Your task to perform on an android device: Add "asus rog" to the cart on newegg.com Image 0: 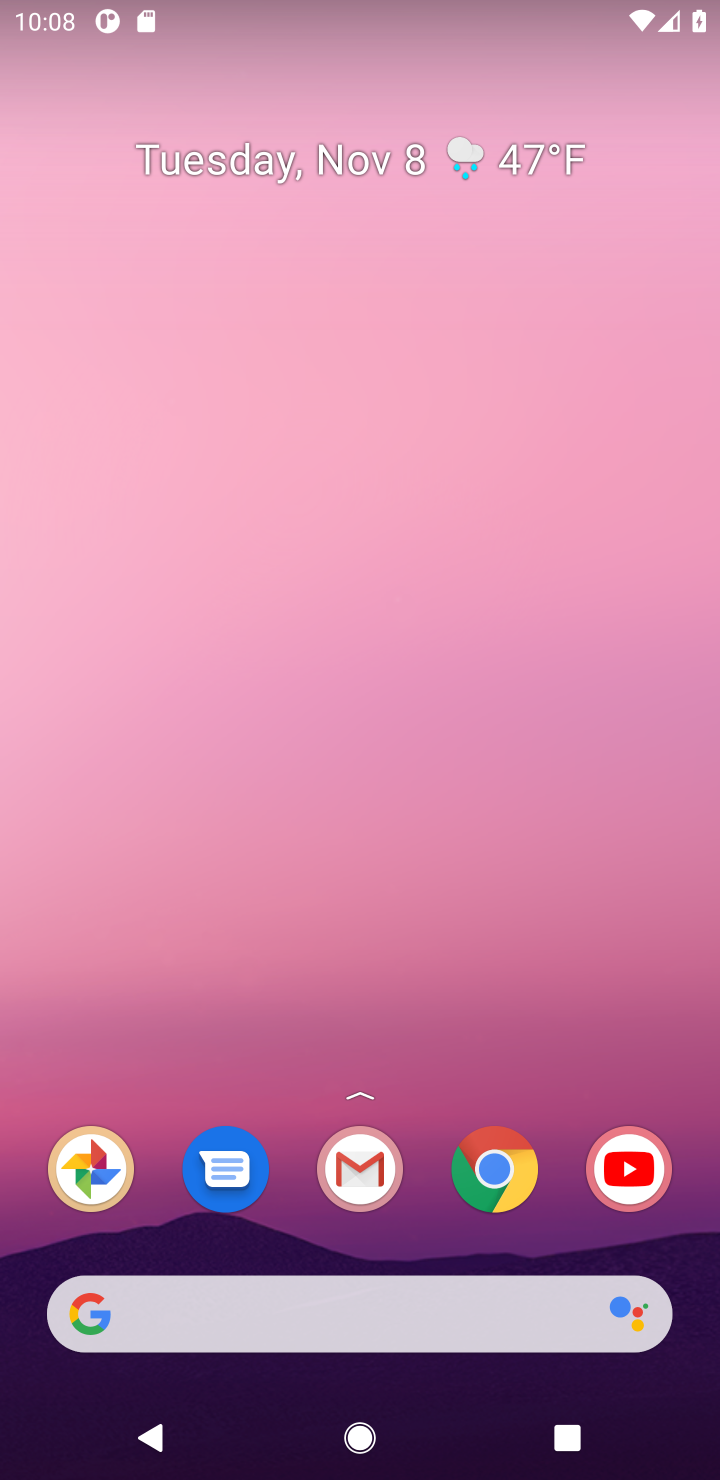
Step 0: click (500, 1168)
Your task to perform on an android device: Add "asus rog" to the cart on newegg.com Image 1: 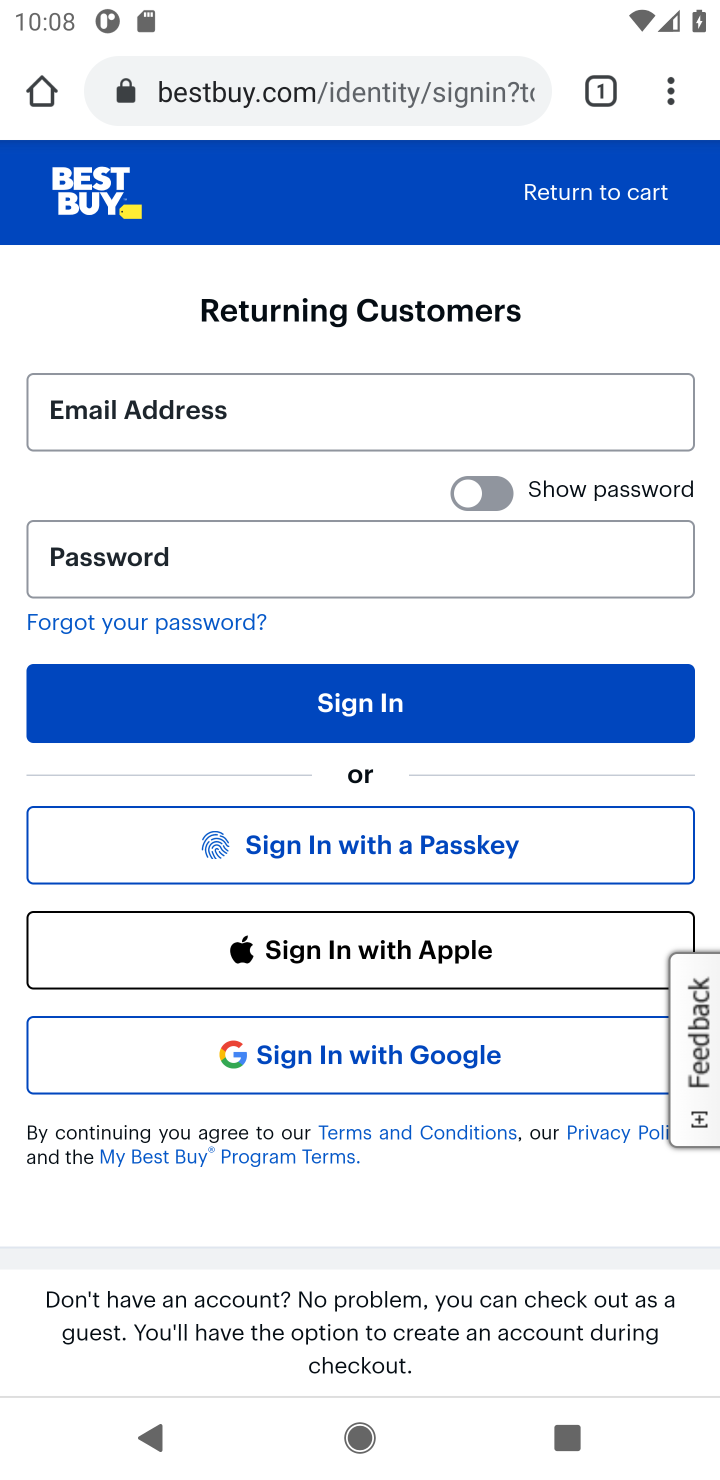
Step 1: click (354, 82)
Your task to perform on an android device: Add "asus rog" to the cart on newegg.com Image 2: 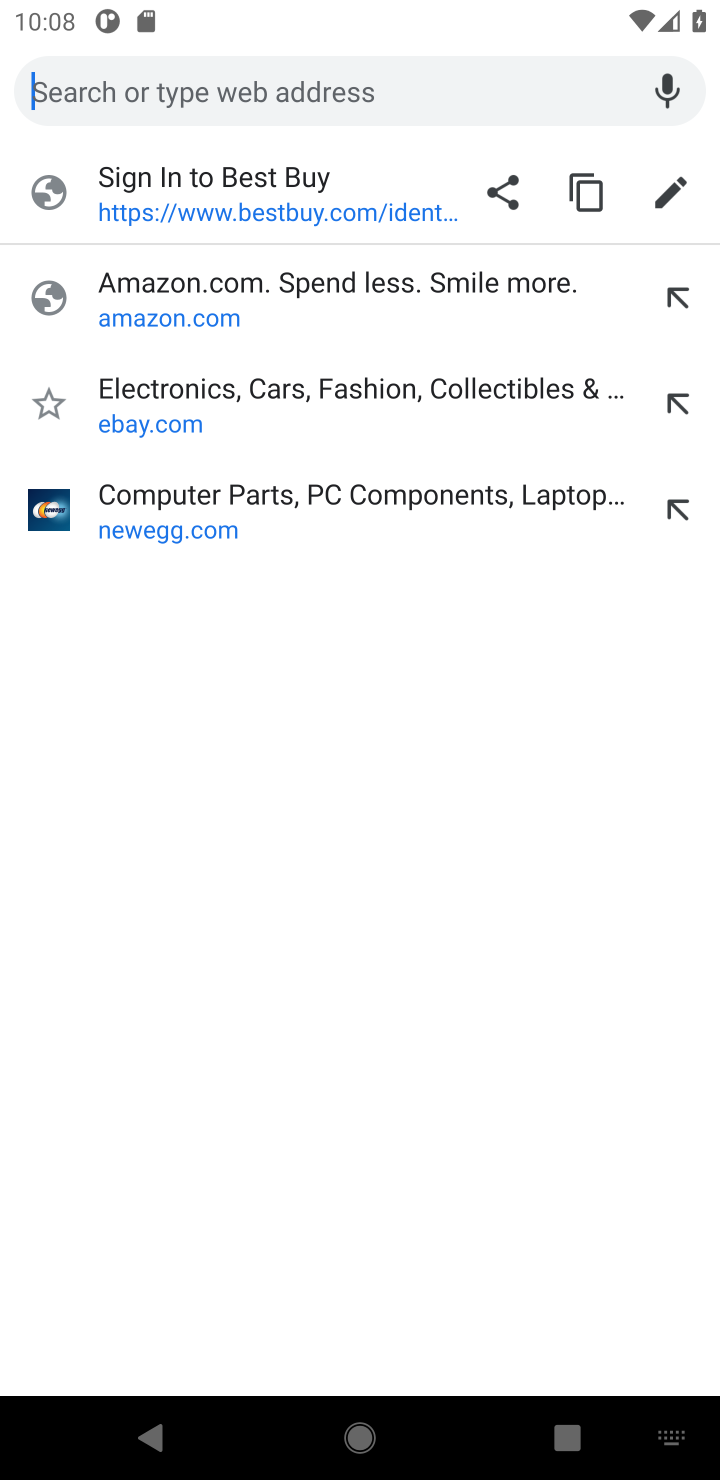
Step 2: type "newegg.com"
Your task to perform on an android device: Add "asus rog" to the cart on newegg.com Image 3: 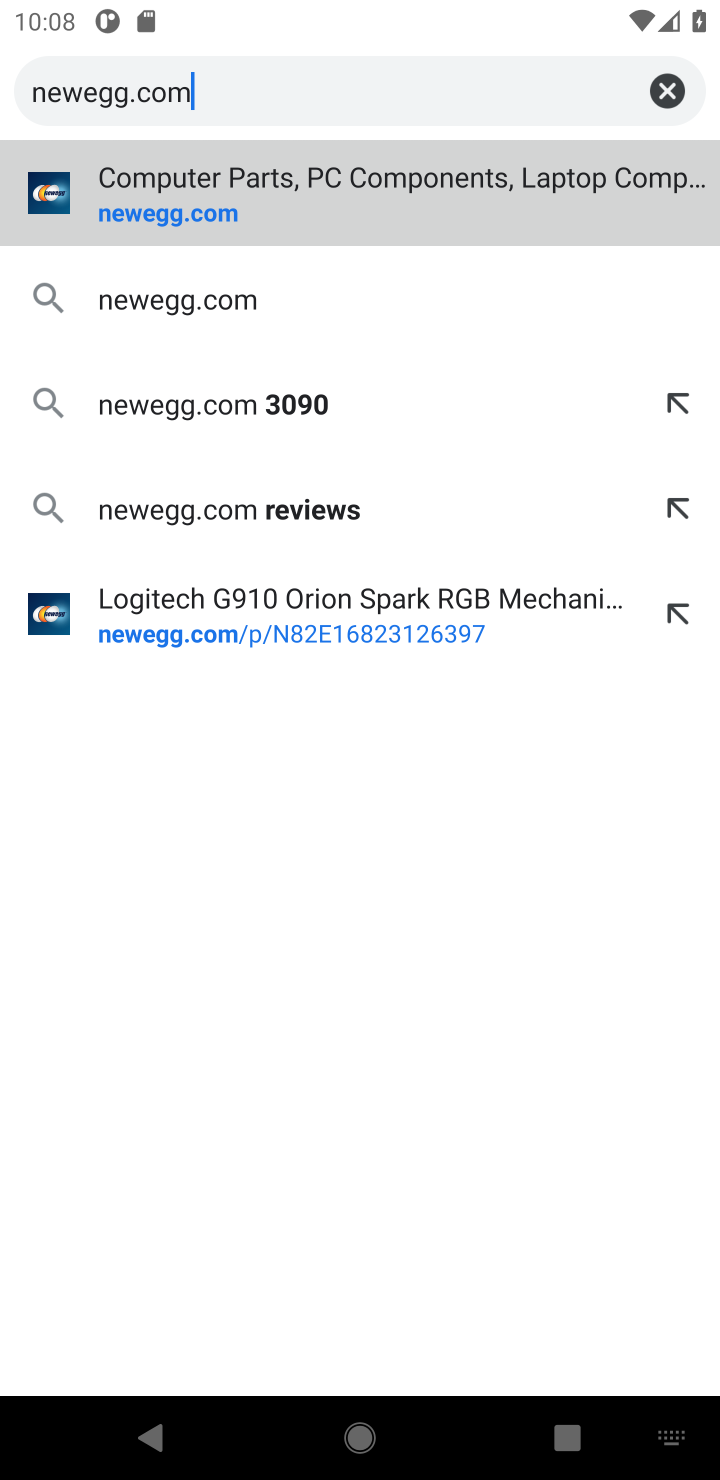
Step 3: click (187, 300)
Your task to perform on an android device: Add "asus rog" to the cart on newegg.com Image 4: 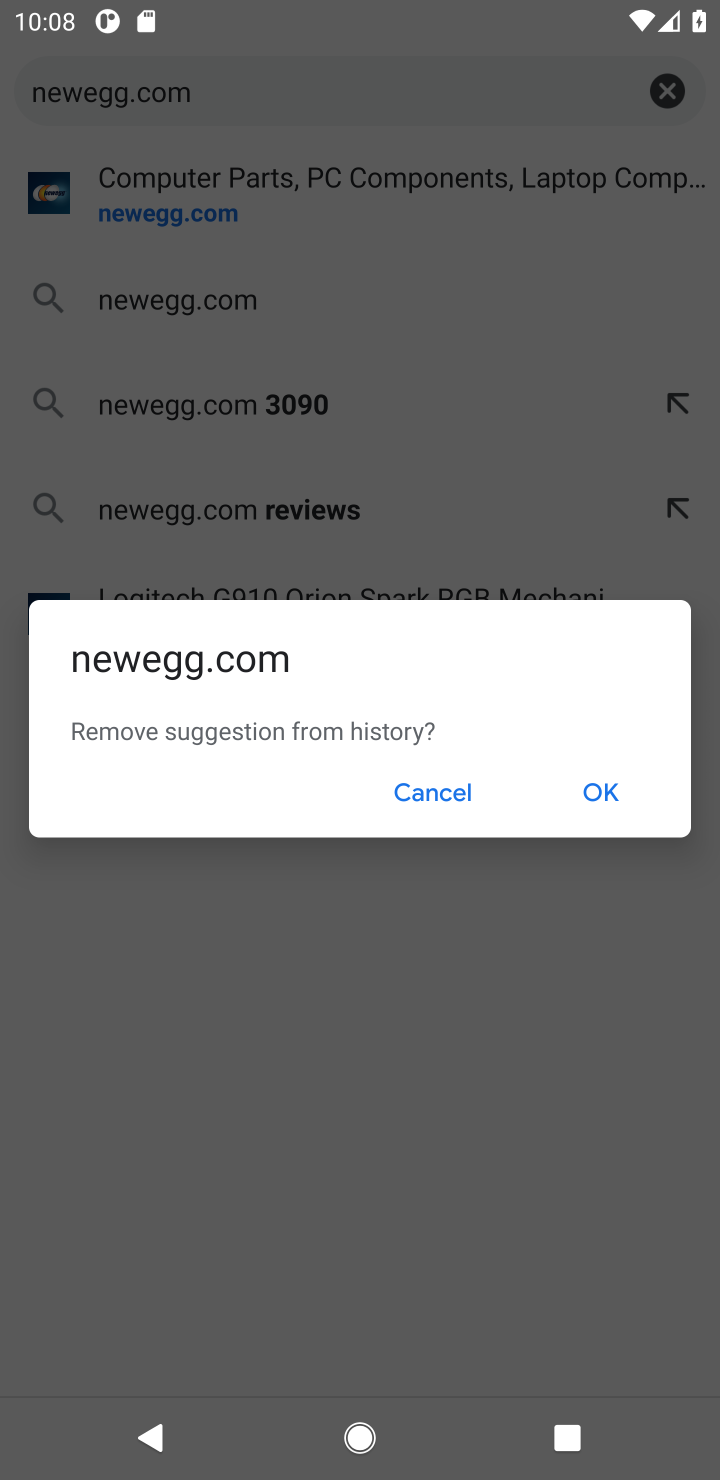
Step 4: click (603, 772)
Your task to perform on an android device: Add "asus rog" to the cart on newegg.com Image 5: 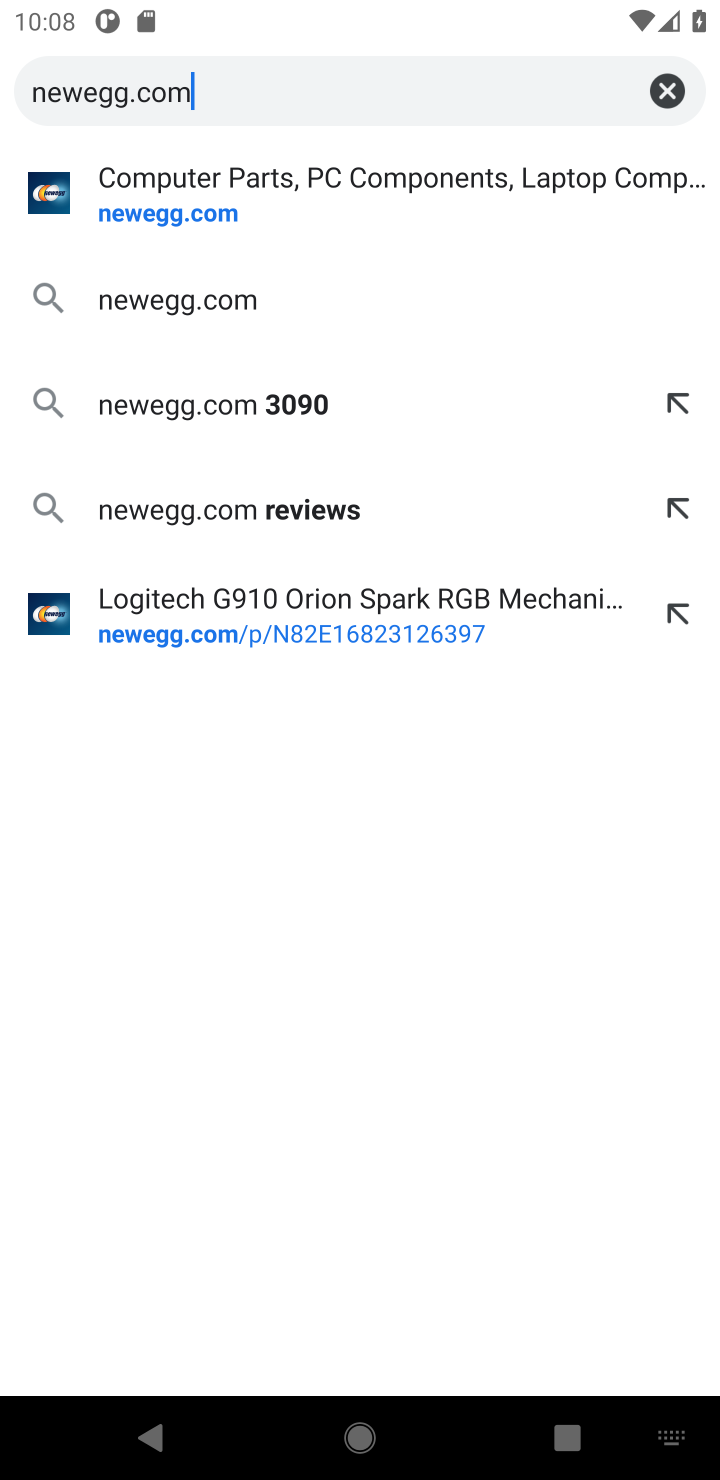
Step 5: click (220, 301)
Your task to perform on an android device: Add "asus rog" to the cart on newegg.com Image 6: 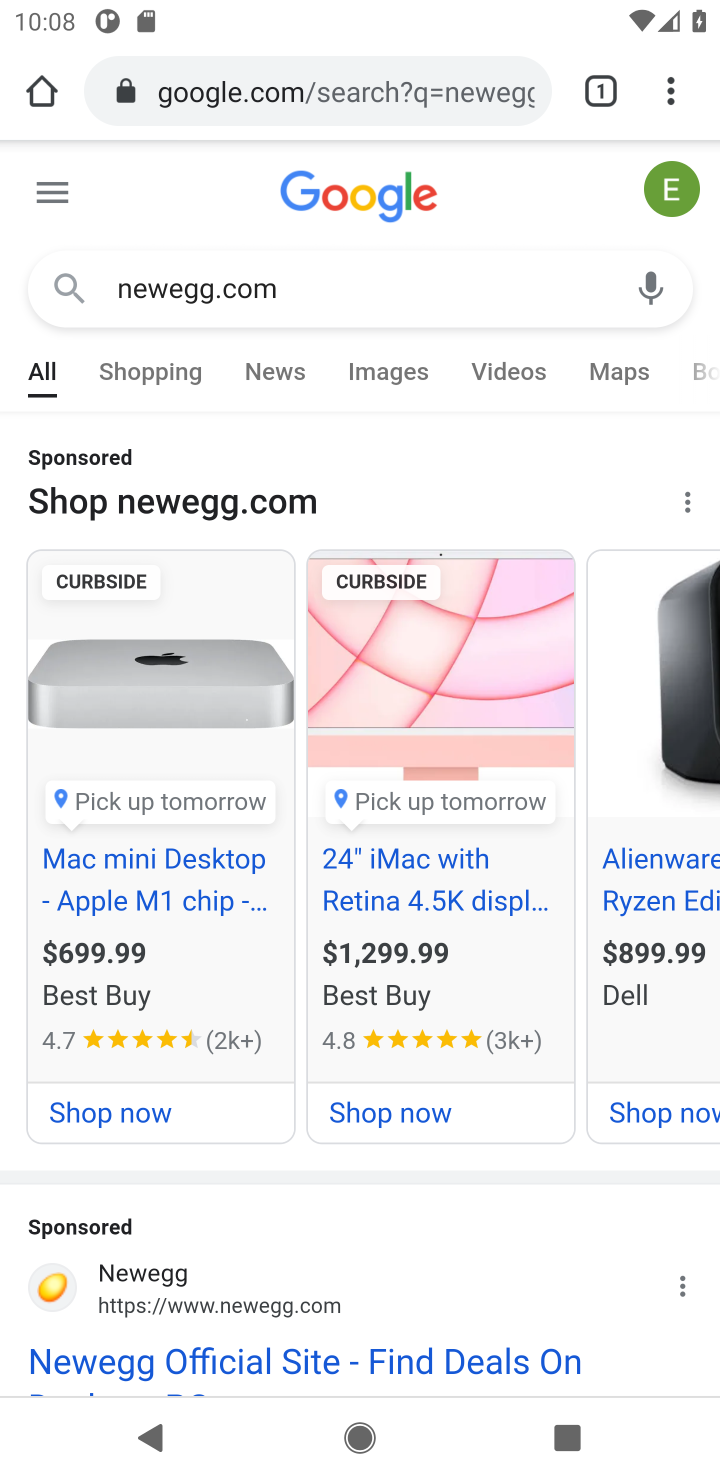
Step 6: click (276, 1288)
Your task to perform on an android device: Add "asus rog" to the cart on newegg.com Image 7: 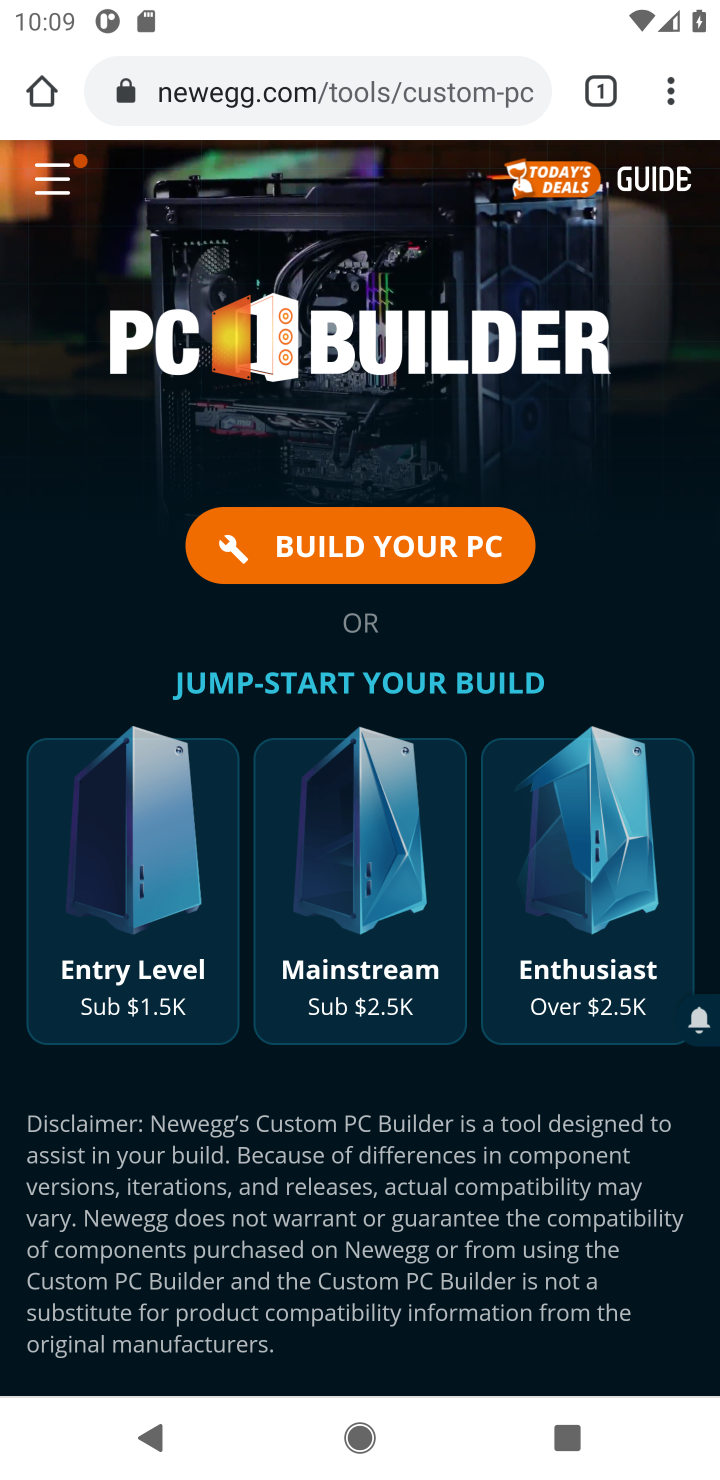
Step 7: drag from (468, 1052) to (482, 1242)
Your task to perform on an android device: Add "asus rog" to the cart on newegg.com Image 8: 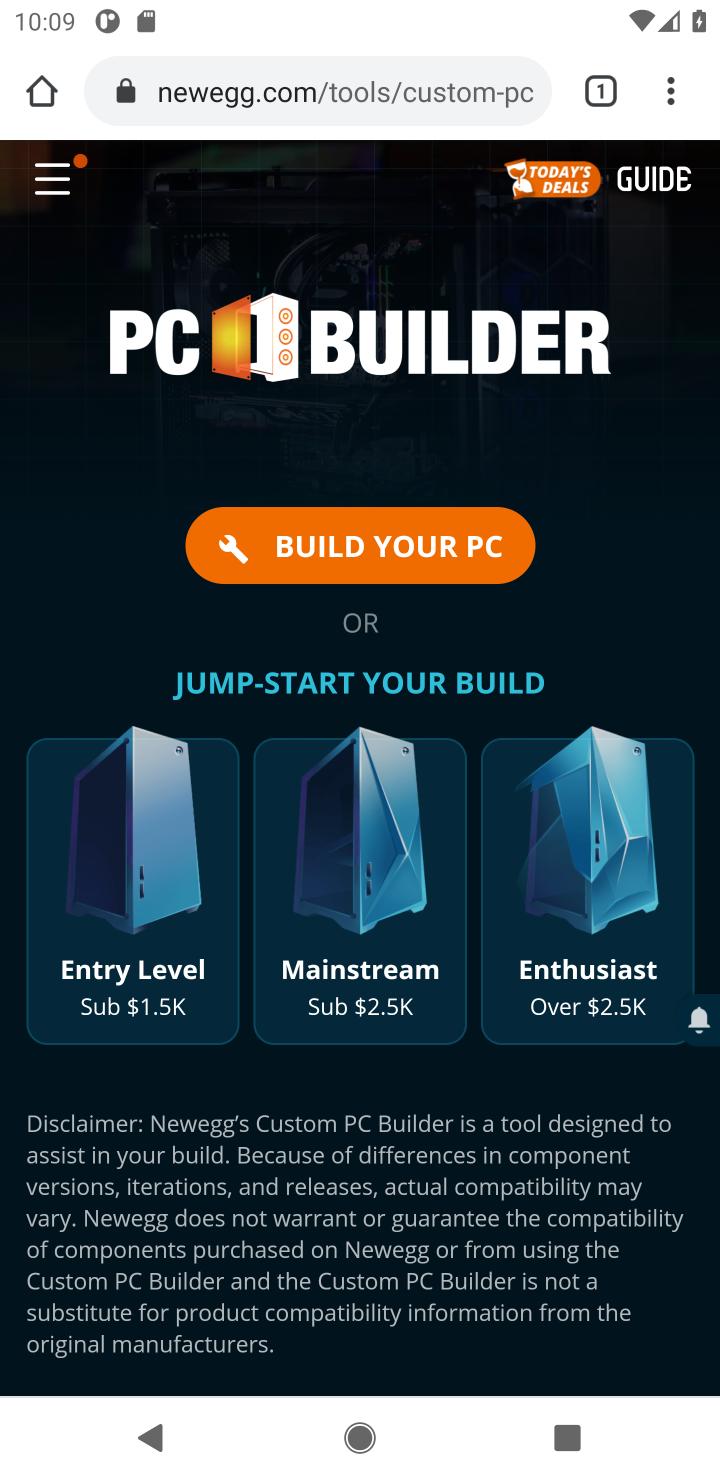
Step 8: press back button
Your task to perform on an android device: Add "asus rog" to the cart on newegg.com Image 9: 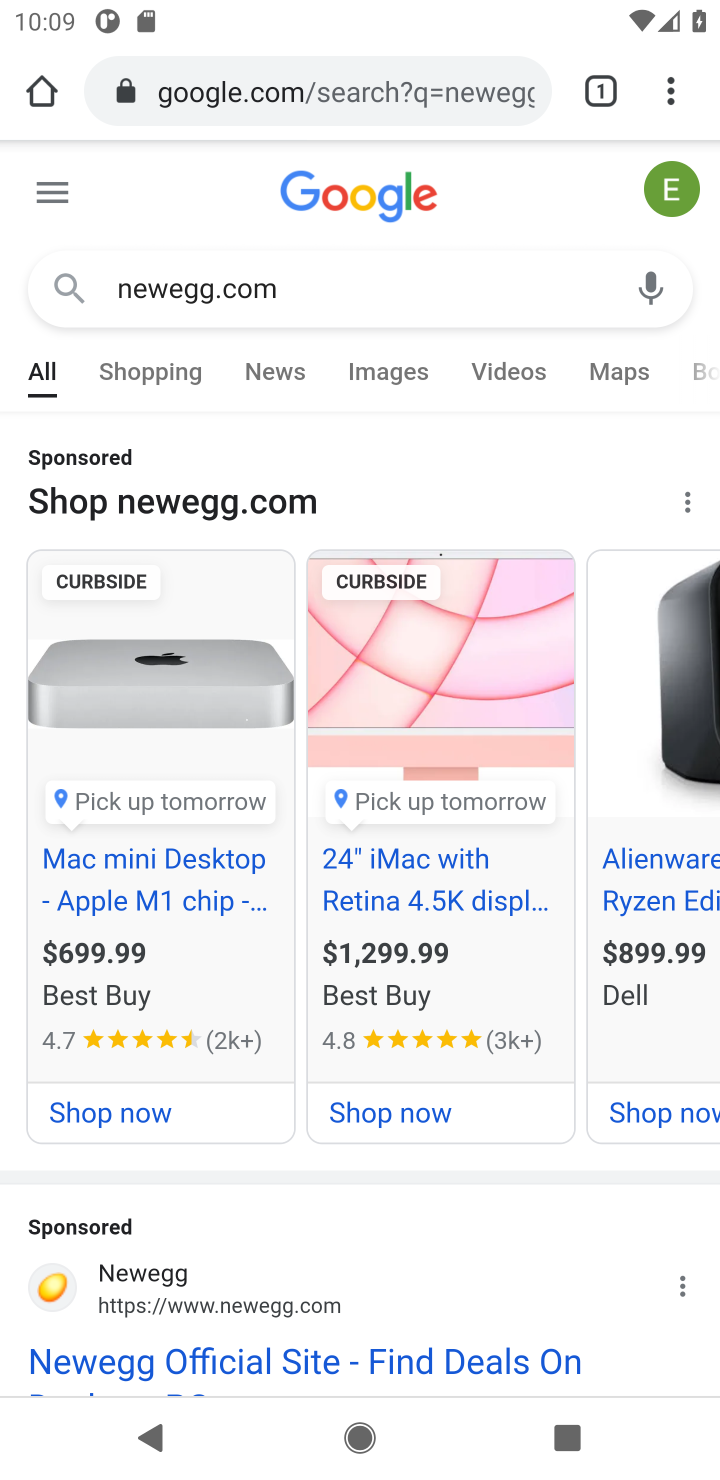
Step 9: click (308, 1301)
Your task to perform on an android device: Add "asus rog" to the cart on newegg.com Image 10: 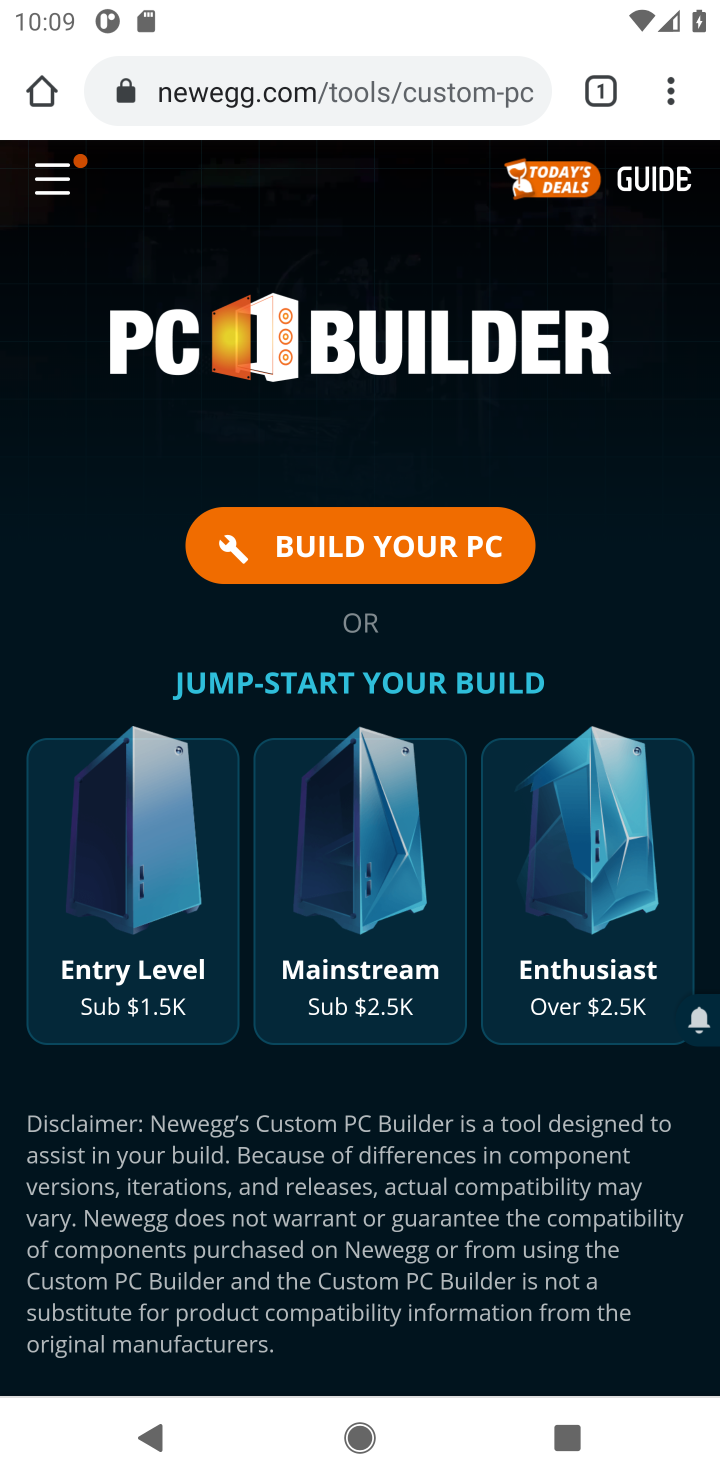
Step 10: press back button
Your task to perform on an android device: Add "asus rog" to the cart on newegg.com Image 11: 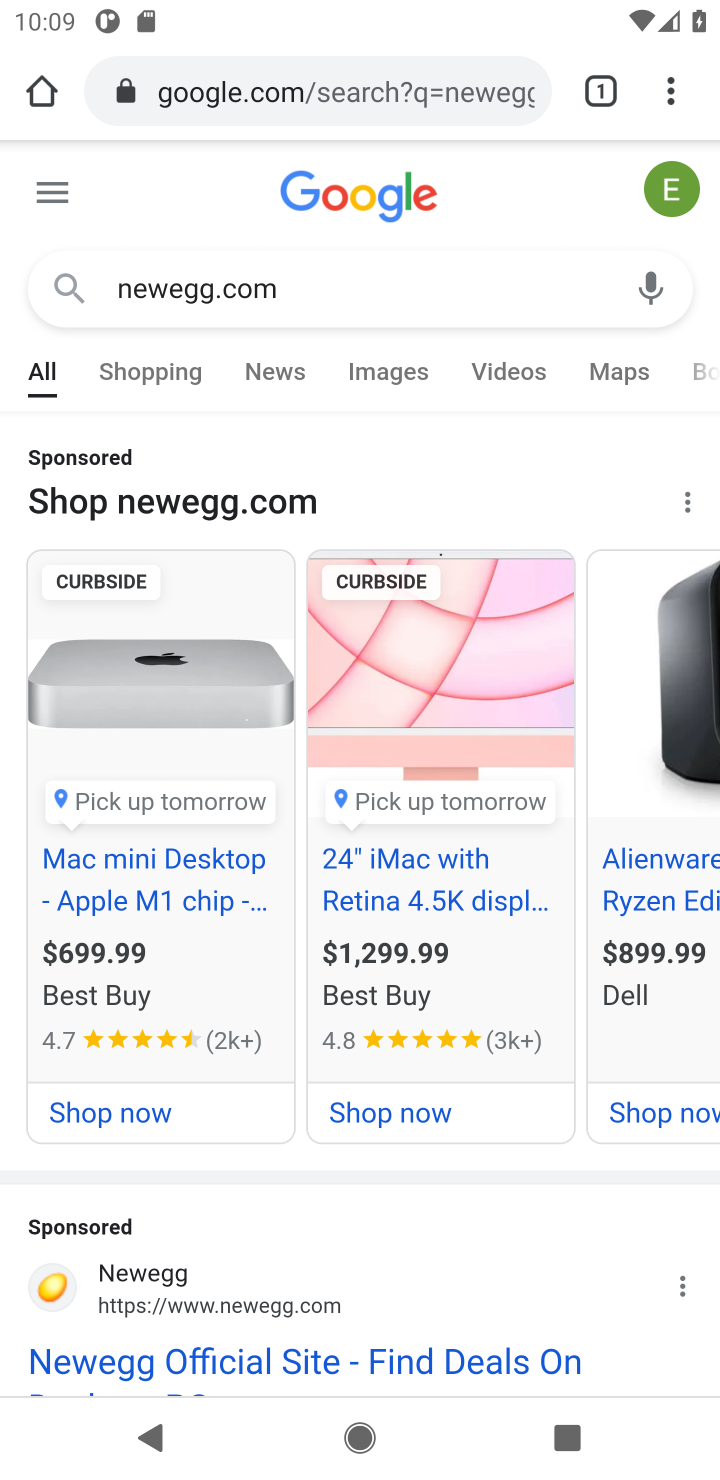
Step 11: click (155, 1270)
Your task to perform on an android device: Add "asus rog" to the cart on newegg.com Image 12: 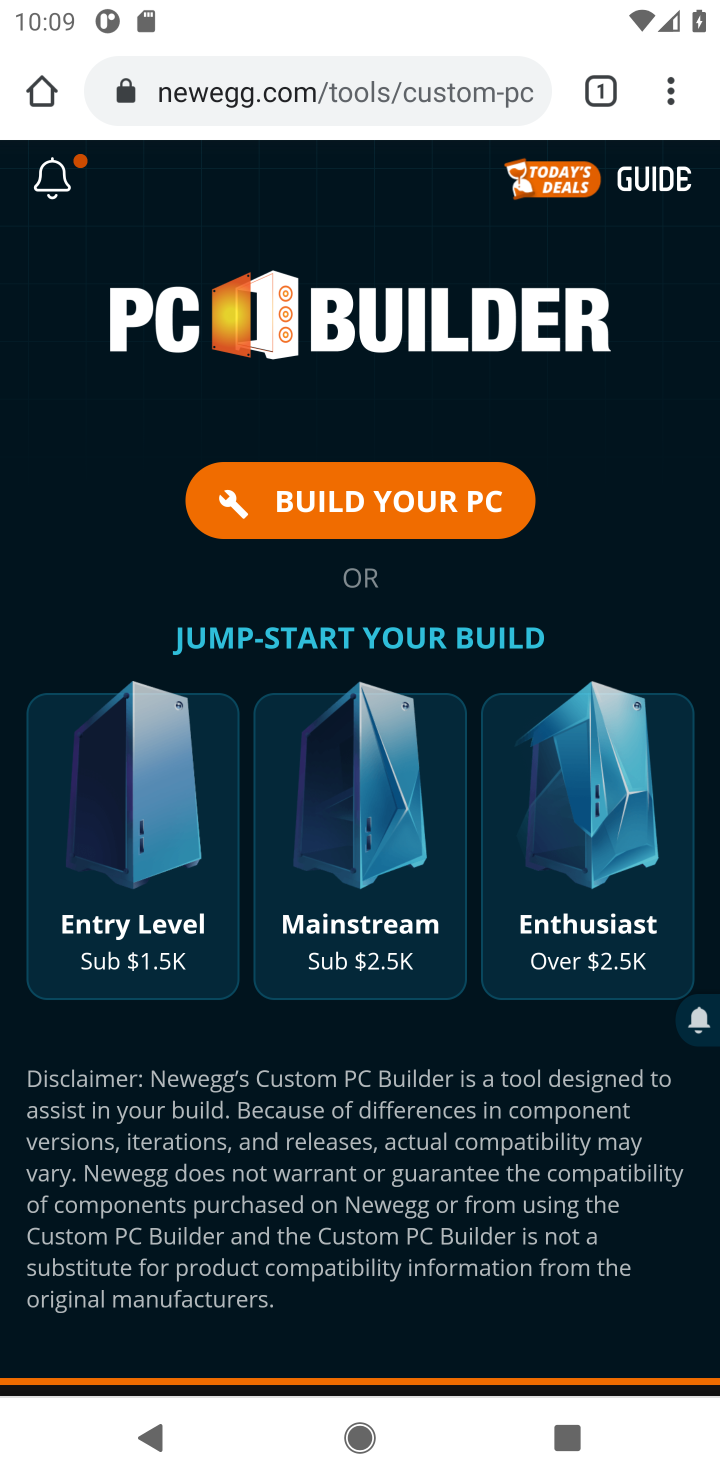
Step 12: task complete